Your task to perform on an android device: add a label to a message in the gmail app Image 0: 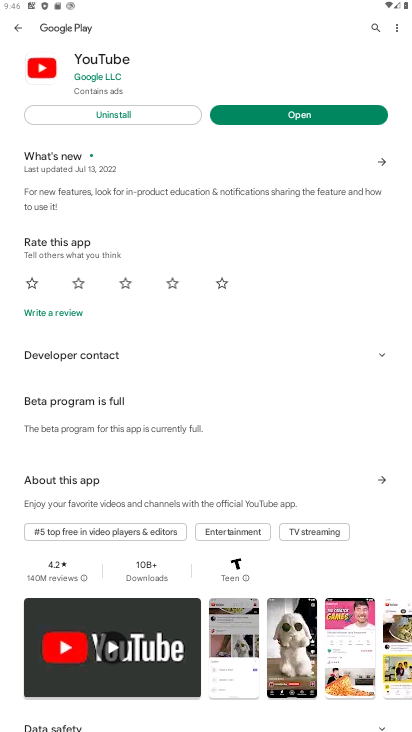
Step 0: drag from (231, 545) to (266, 335)
Your task to perform on an android device: add a label to a message in the gmail app Image 1: 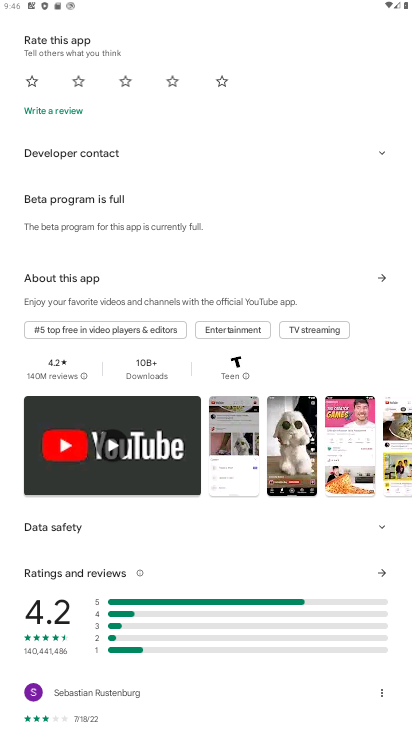
Step 1: press home button
Your task to perform on an android device: add a label to a message in the gmail app Image 2: 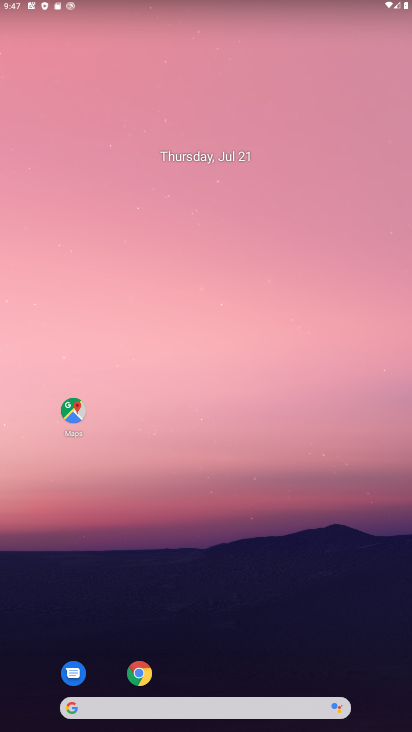
Step 2: drag from (239, 559) to (301, 252)
Your task to perform on an android device: add a label to a message in the gmail app Image 3: 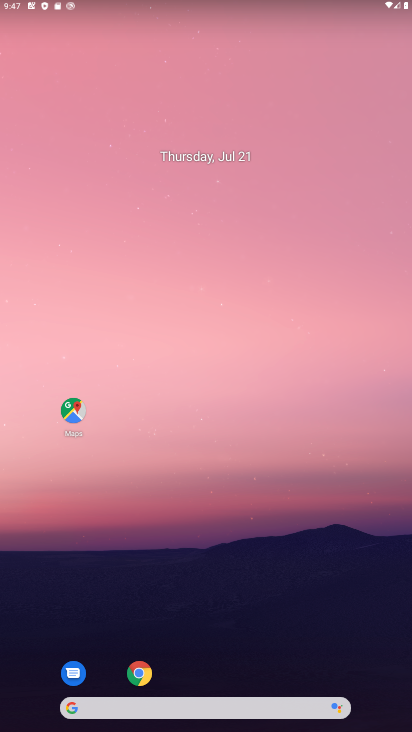
Step 3: drag from (180, 288) to (191, 110)
Your task to perform on an android device: add a label to a message in the gmail app Image 4: 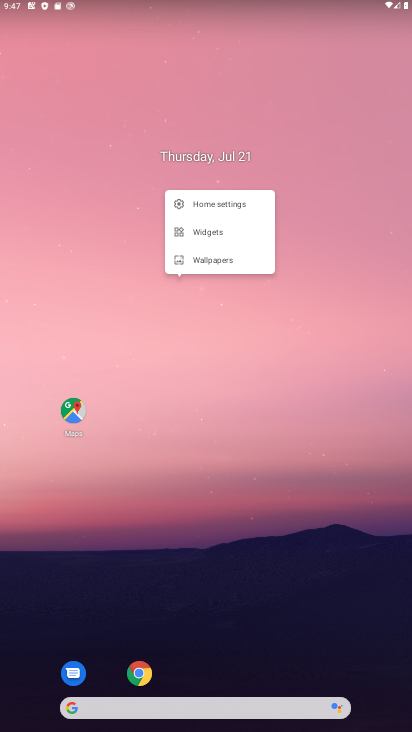
Step 4: drag from (223, 220) to (243, 141)
Your task to perform on an android device: add a label to a message in the gmail app Image 5: 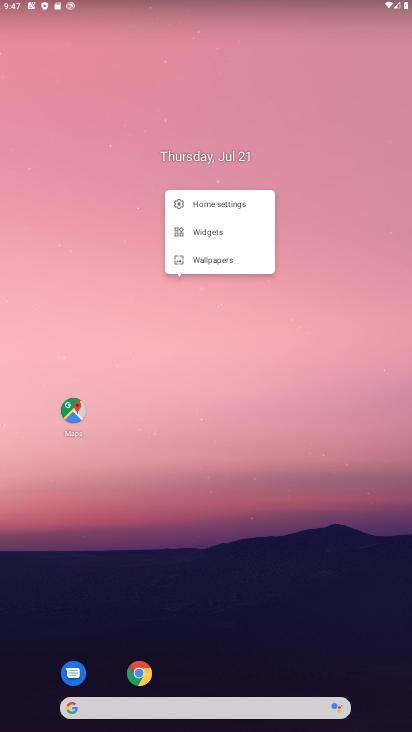
Step 5: press home button
Your task to perform on an android device: add a label to a message in the gmail app Image 6: 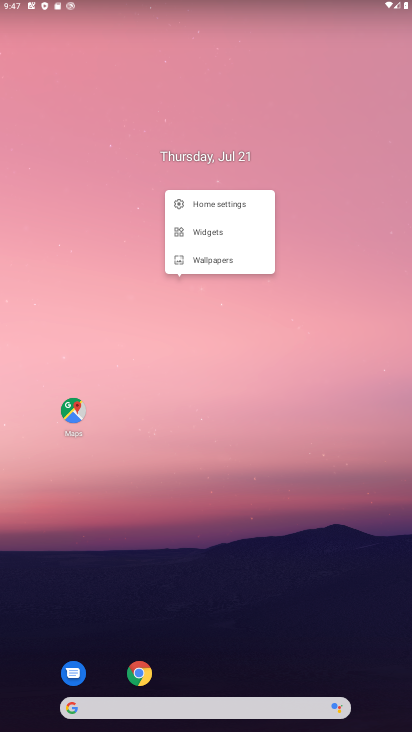
Step 6: press home button
Your task to perform on an android device: add a label to a message in the gmail app Image 7: 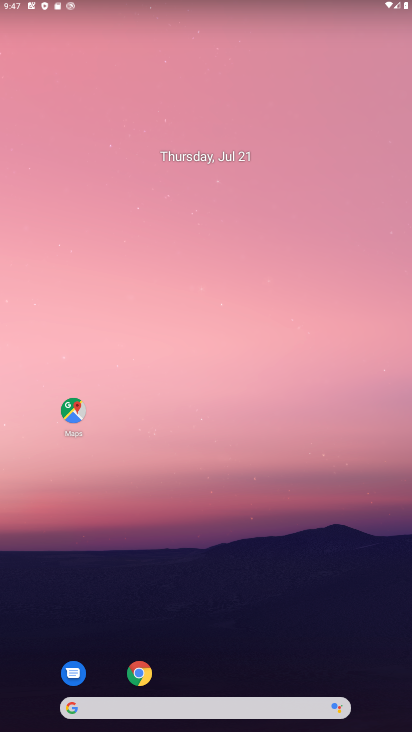
Step 7: drag from (220, 553) to (247, 150)
Your task to perform on an android device: add a label to a message in the gmail app Image 8: 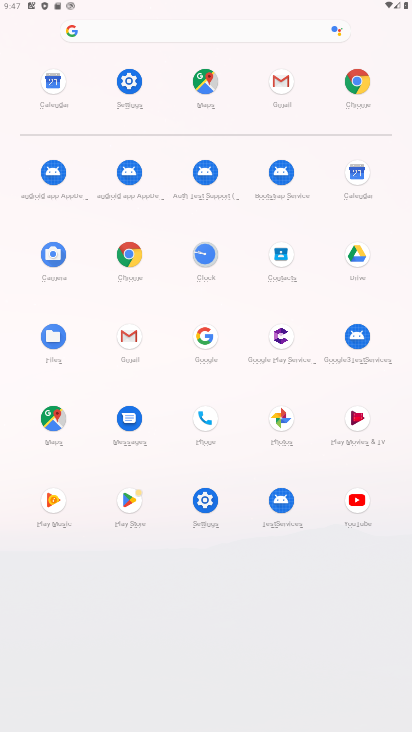
Step 8: drag from (204, 498) to (311, 63)
Your task to perform on an android device: add a label to a message in the gmail app Image 9: 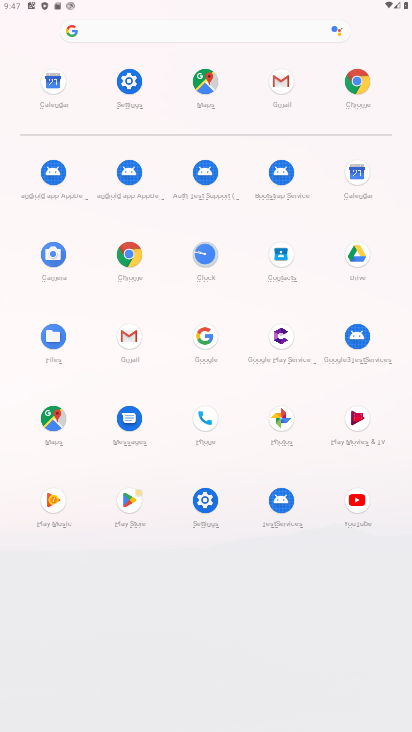
Step 9: click (280, 79)
Your task to perform on an android device: add a label to a message in the gmail app Image 10: 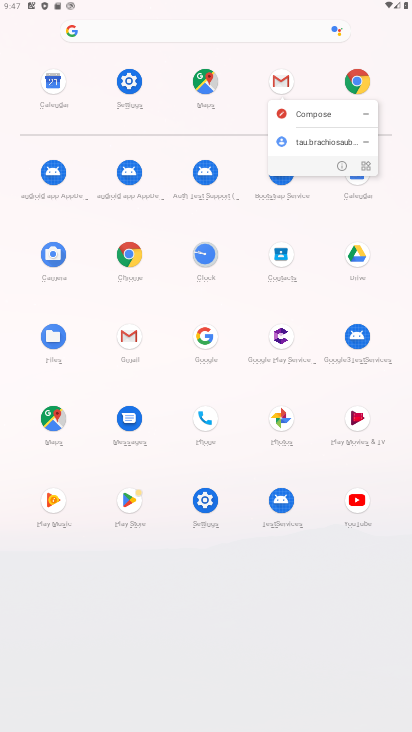
Step 10: click (335, 164)
Your task to perform on an android device: add a label to a message in the gmail app Image 11: 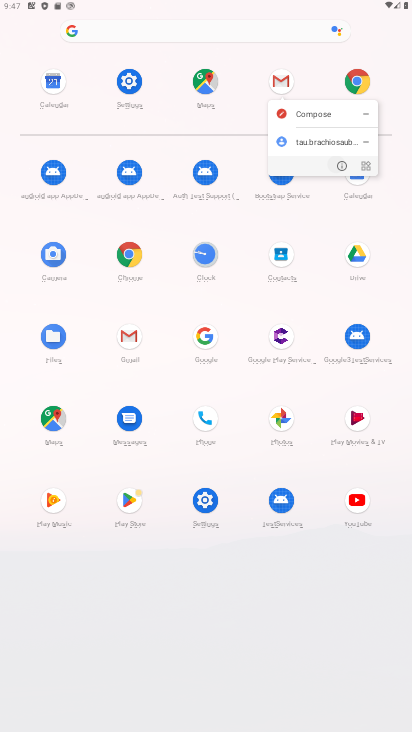
Step 11: click (335, 164)
Your task to perform on an android device: add a label to a message in the gmail app Image 12: 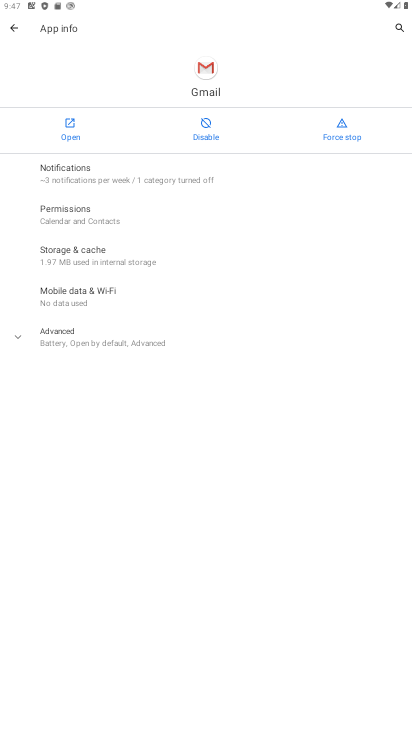
Step 12: click (68, 128)
Your task to perform on an android device: add a label to a message in the gmail app Image 13: 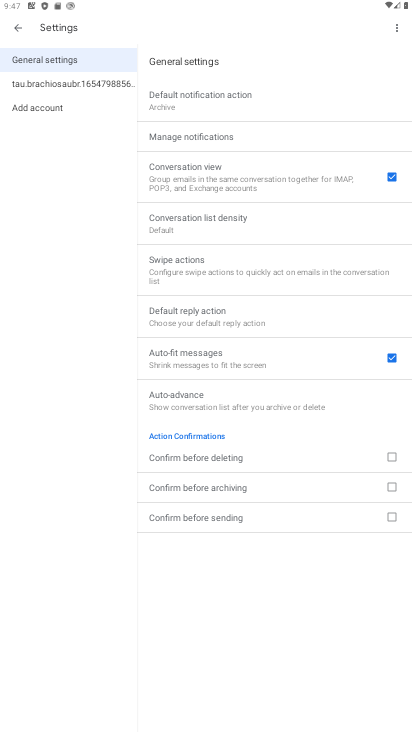
Step 13: click (15, 17)
Your task to perform on an android device: add a label to a message in the gmail app Image 14: 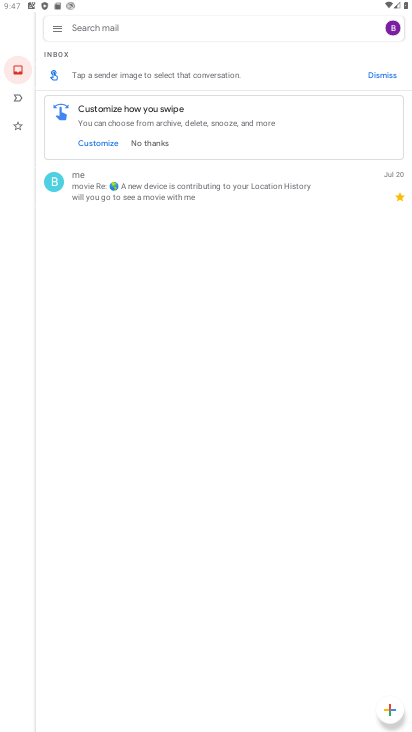
Step 14: drag from (218, 393) to (250, 162)
Your task to perform on an android device: add a label to a message in the gmail app Image 15: 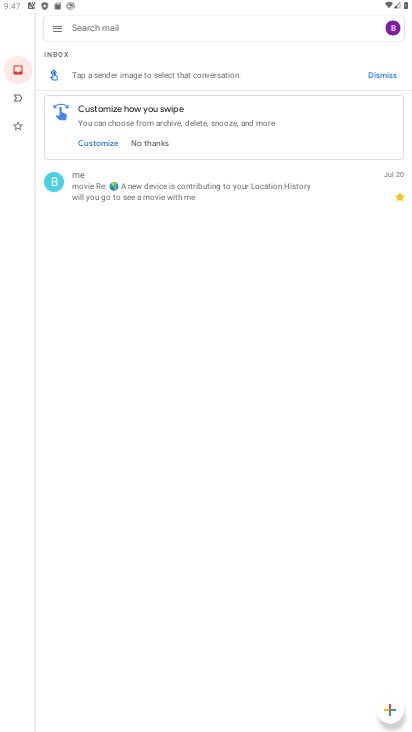
Step 15: click (113, 184)
Your task to perform on an android device: add a label to a message in the gmail app Image 16: 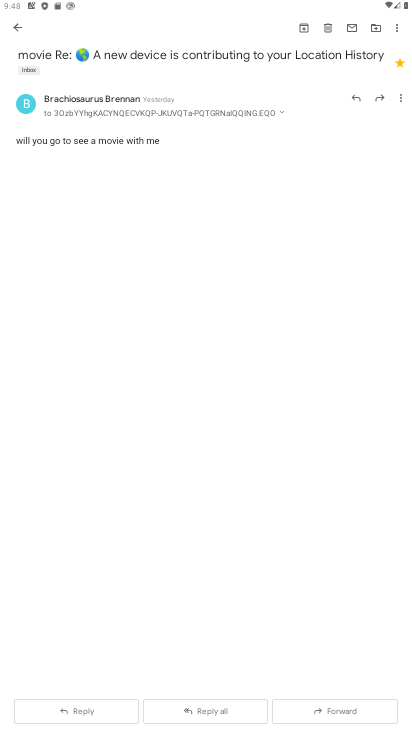
Step 16: drag from (247, 541) to (247, 220)
Your task to perform on an android device: add a label to a message in the gmail app Image 17: 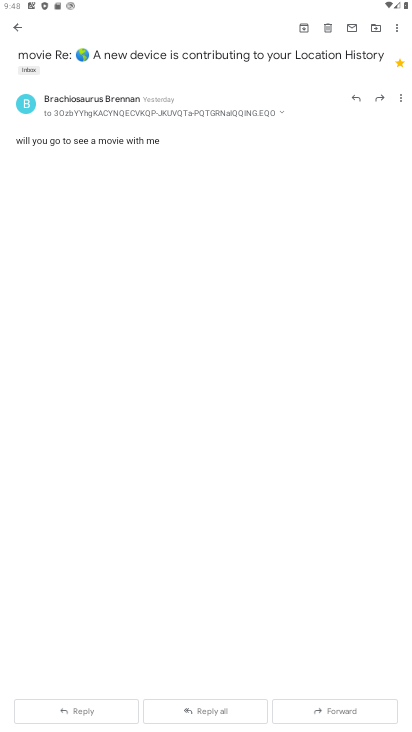
Step 17: drag from (201, 528) to (261, 266)
Your task to perform on an android device: add a label to a message in the gmail app Image 18: 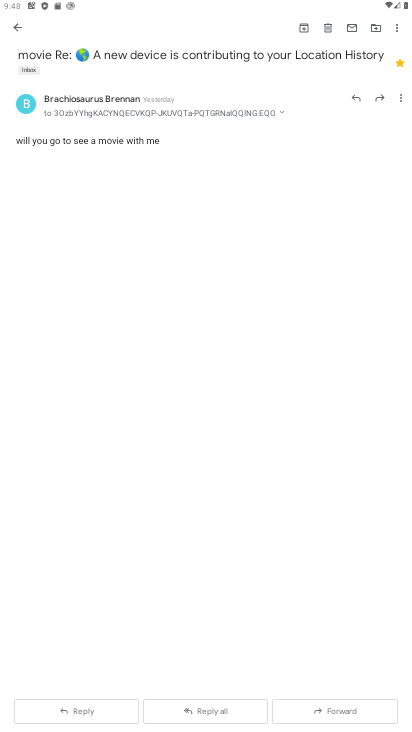
Step 18: drag from (199, 485) to (336, 22)
Your task to perform on an android device: add a label to a message in the gmail app Image 19: 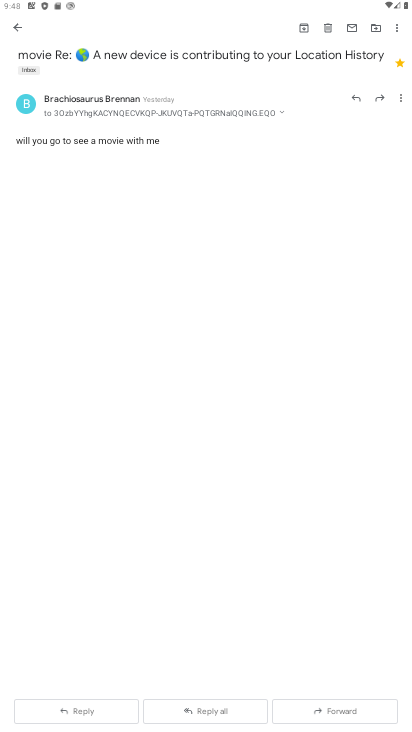
Step 19: click (395, 67)
Your task to perform on an android device: add a label to a message in the gmail app Image 20: 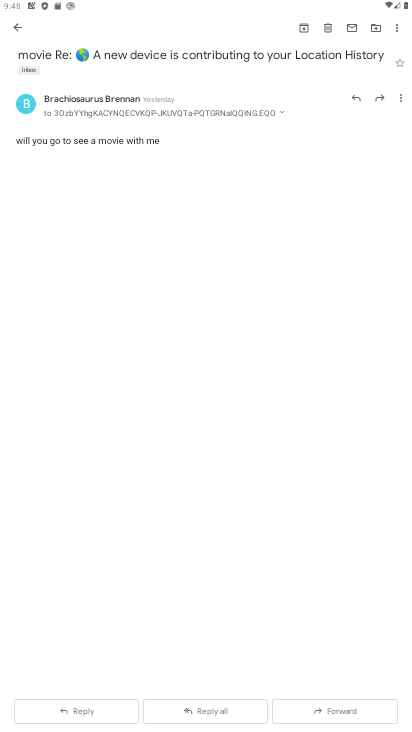
Step 20: task complete